Your task to perform on an android device: Open Chrome and go to the settings page Image 0: 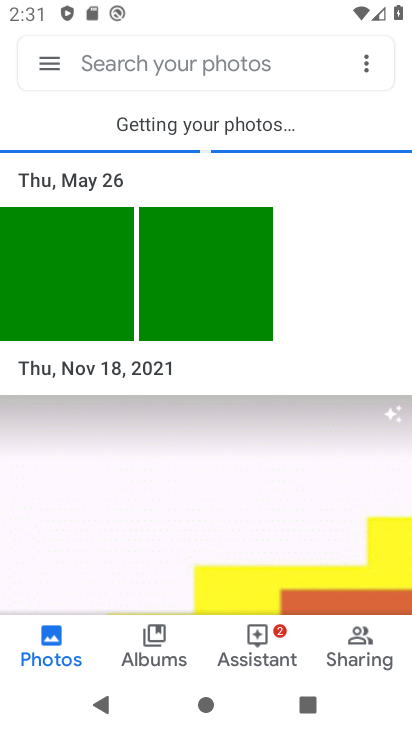
Step 0: press home button
Your task to perform on an android device: Open Chrome and go to the settings page Image 1: 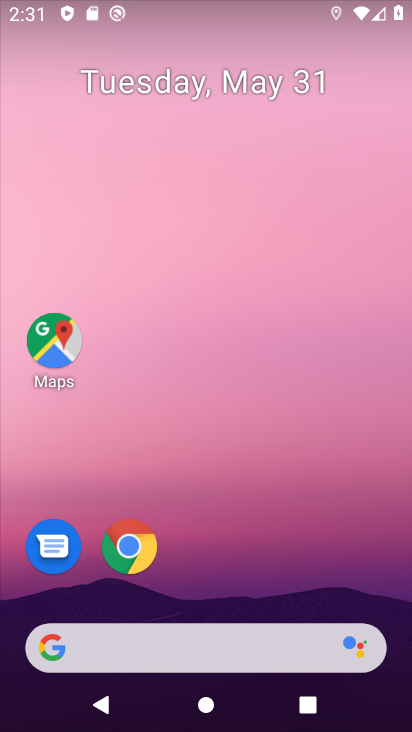
Step 1: click (123, 536)
Your task to perform on an android device: Open Chrome and go to the settings page Image 2: 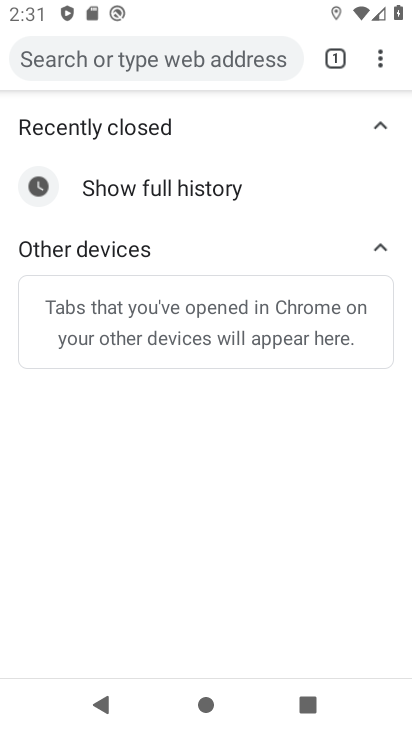
Step 2: click (376, 55)
Your task to perform on an android device: Open Chrome and go to the settings page Image 3: 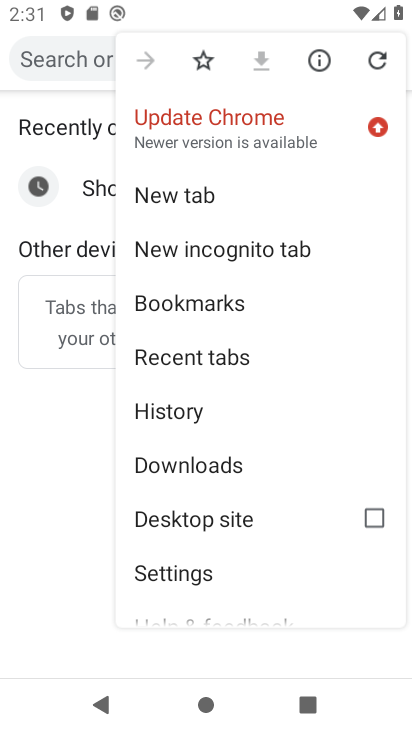
Step 3: click (247, 571)
Your task to perform on an android device: Open Chrome and go to the settings page Image 4: 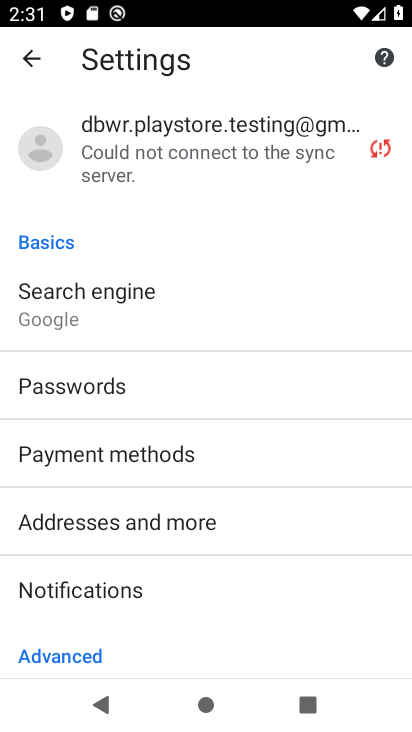
Step 4: task complete